Your task to perform on an android device: Go to Google Image 0: 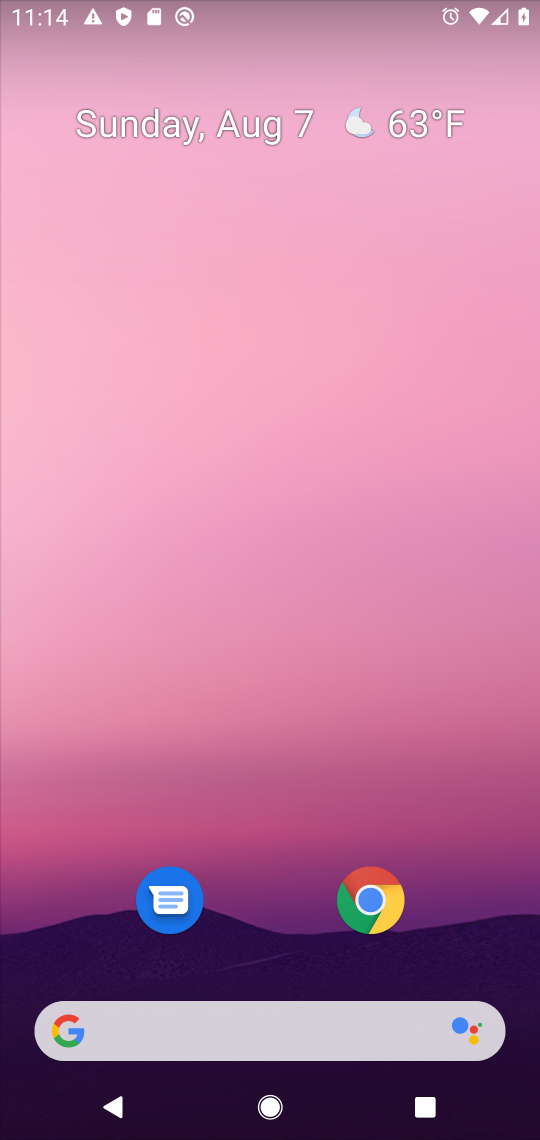
Step 0: press home button
Your task to perform on an android device: Go to Google Image 1: 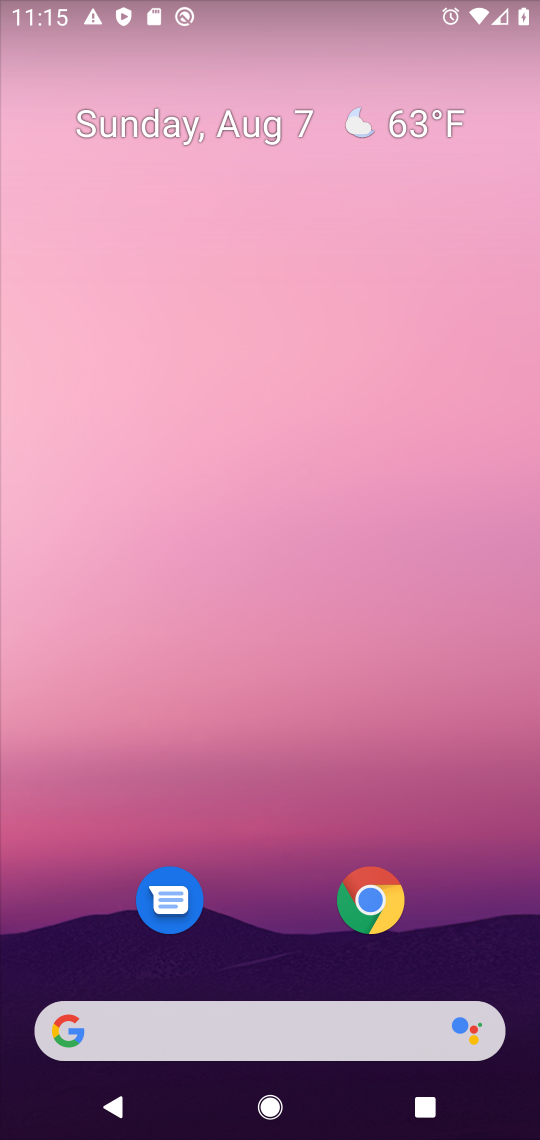
Step 1: drag from (274, 950) to (337, 33)
Your task to perform on an android device: Go to Google Image 2: 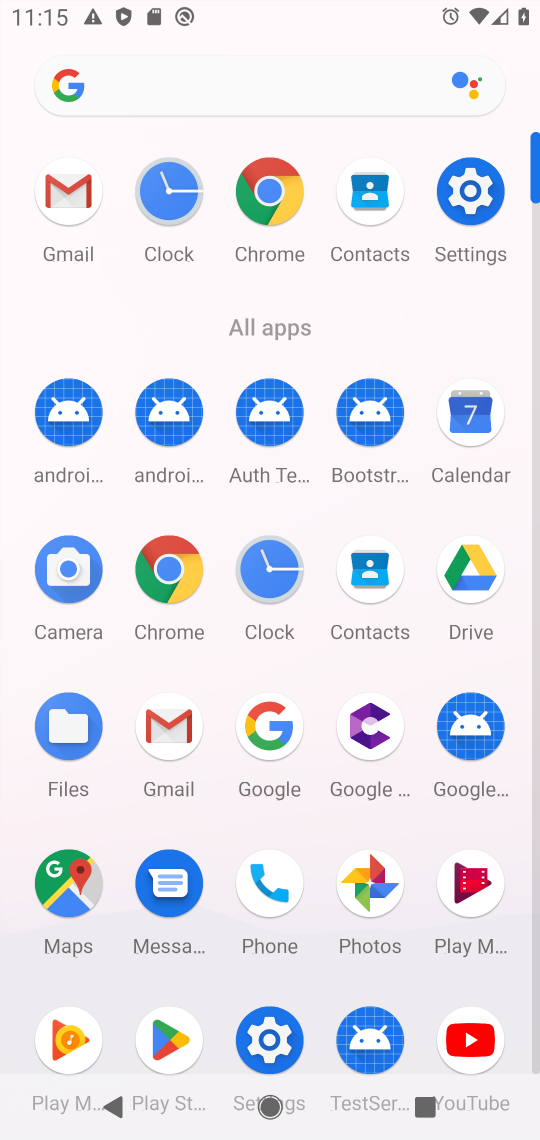
Step 2: click (269, 715)
Your task to perform on an android device: Go to Google Image 3: 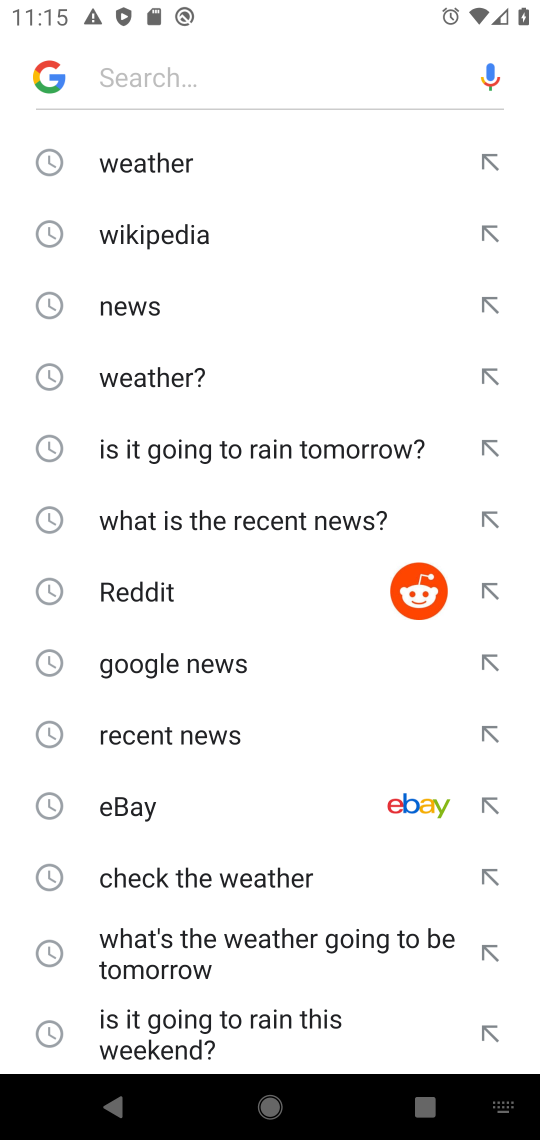
Step 3: press back button
Your task to perform on an android device: Go to Google Image 4: 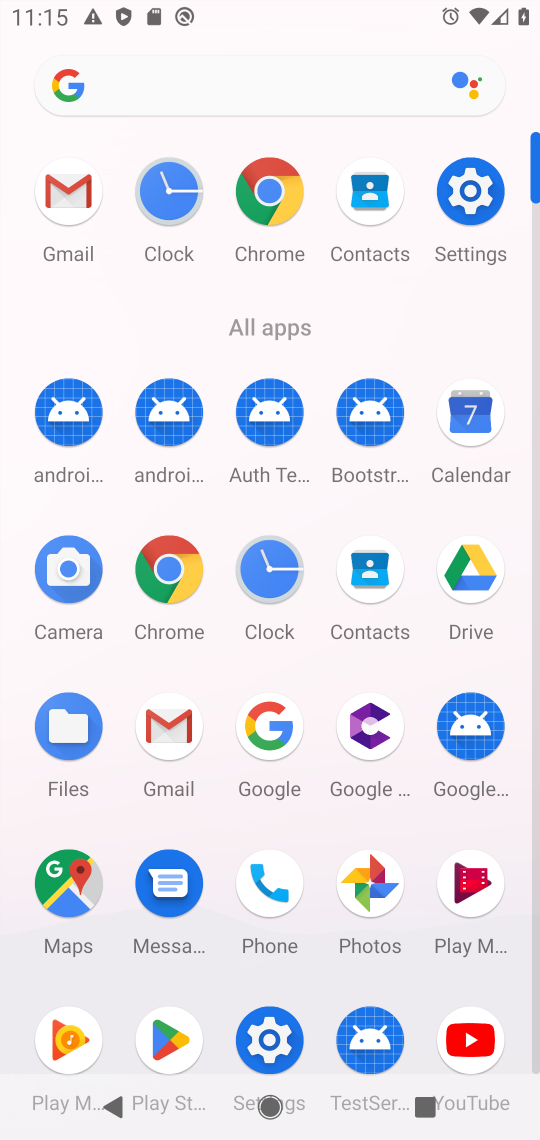
Step 4: click (266, 718)
Your task to perform on an android device: Go to Google Image 5: 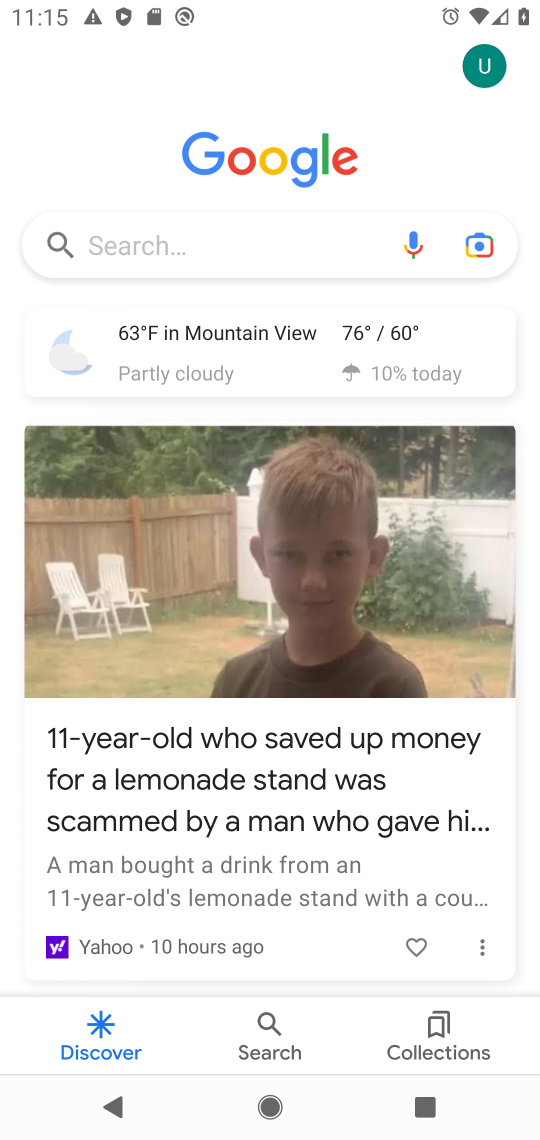
Step 5: task complete